Your task to perform on an android device: What's the weather going to be tomorrow? Image 0: 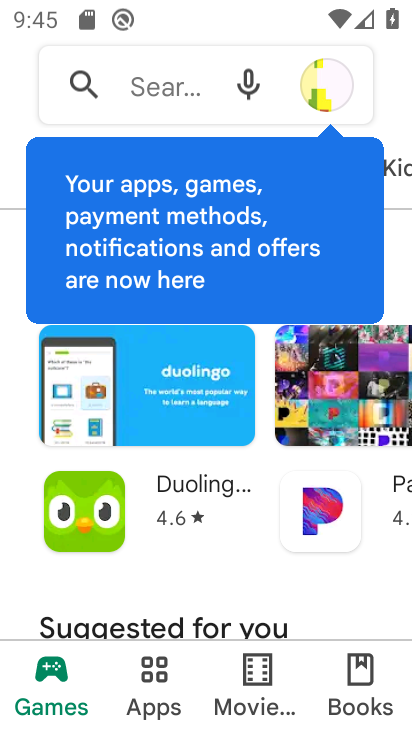
Step 0: press home button
Your task to perform on an android device: What's the weather going to be tomorrow? Image 1: 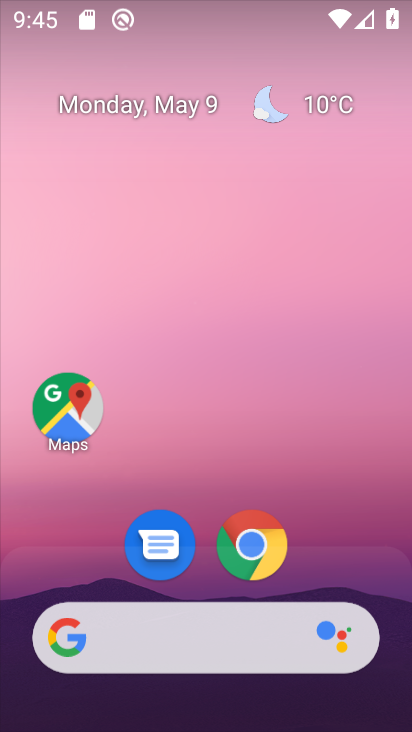
Step 1: click (314, 110)
Your task to perform on an android device: What's the weather going to be tomorrow? Image 2: 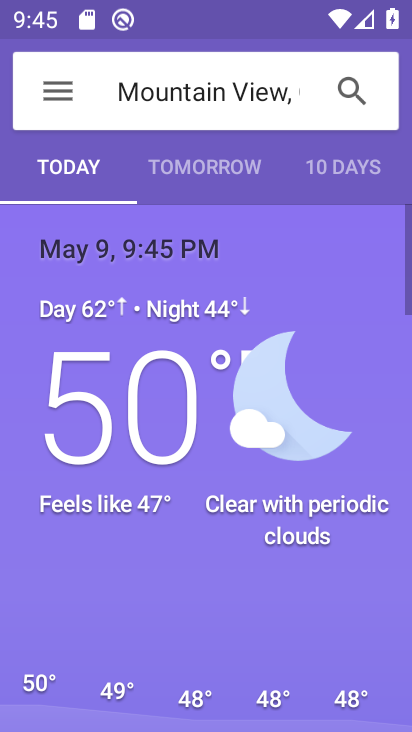
Step 2: click (195, 170)
Your task to perform on an android device: What's the weather going to be tomorrow? Image 3: 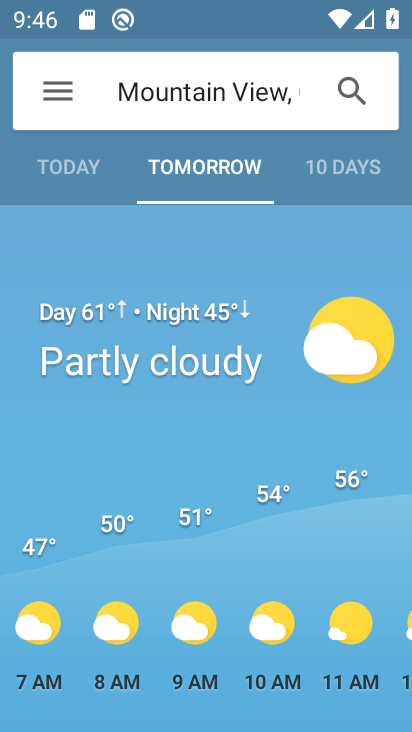
Step 3: task complete